Your task to perform on an android device: Open Chrome and go to the settings page Image 0: 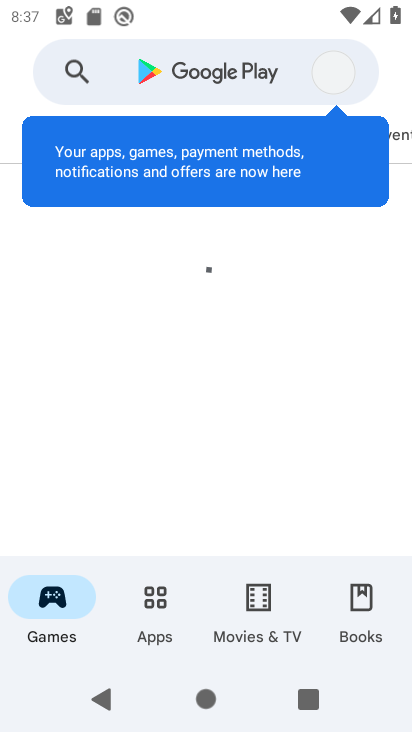
Step 0: press home button
Your task to perform on an android device: Open Chrome and go to the settings page Image 1: 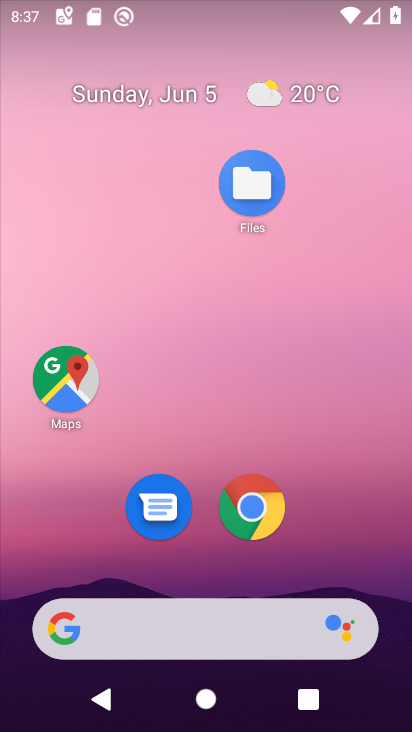
Step 1: click (261, 537)
Your task to perform on an android device: Open Chrome and go to the settings page Image 2: 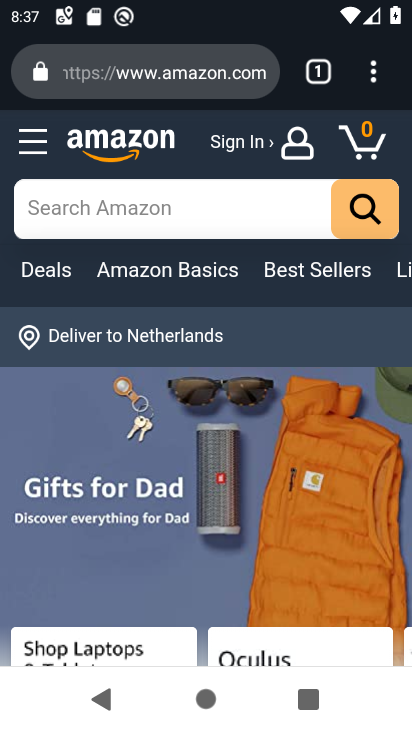
Step 2: click (370, 67)
Your task to perform on an android device: Open Chrome and go to the settings page Image 3: 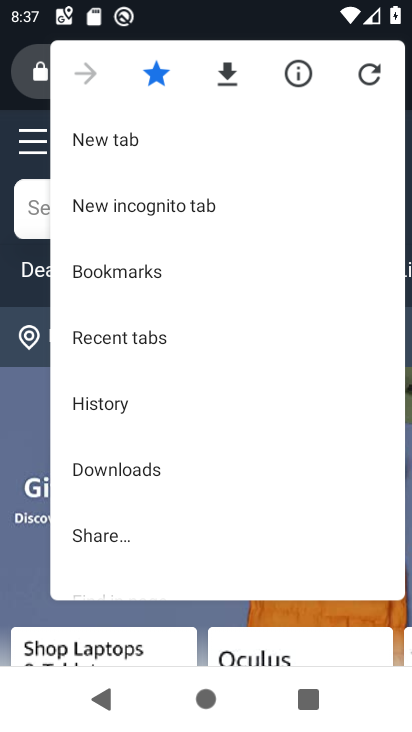
Step 3: drag from (108, 546) to (83, 245)
Your task to perform on an android device: Open Chrome and go to the settings page Image 4: 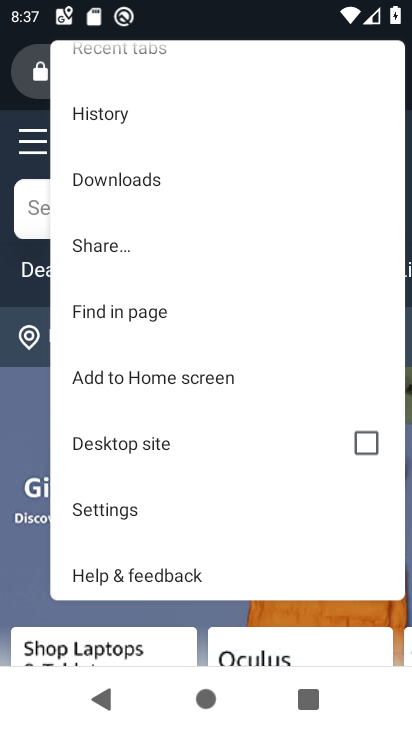
Step 4: click (115, 501)
Your task to perform on an android device: Open Chrome and go to the settings page Image 5: 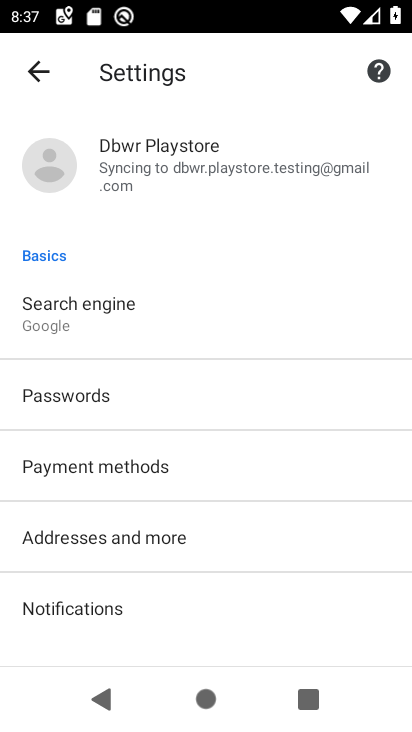
Step 5: task complete